Your task to perform on an android device: toggle data saver in the chrome app Image 0: 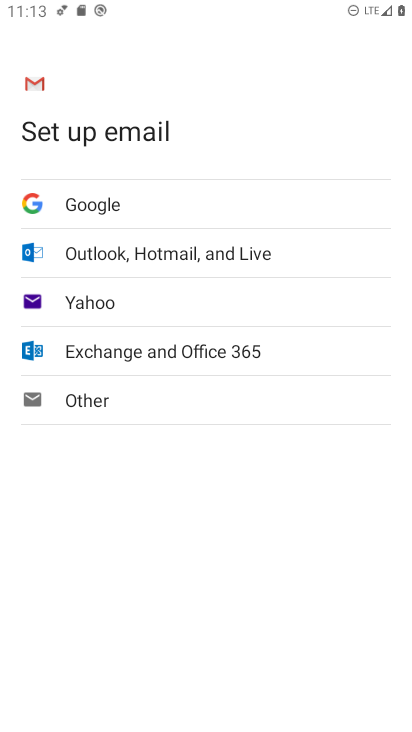
Step 0: press home button
Your task to perform on an android device: toggle data saver in the chrome app Image 1: 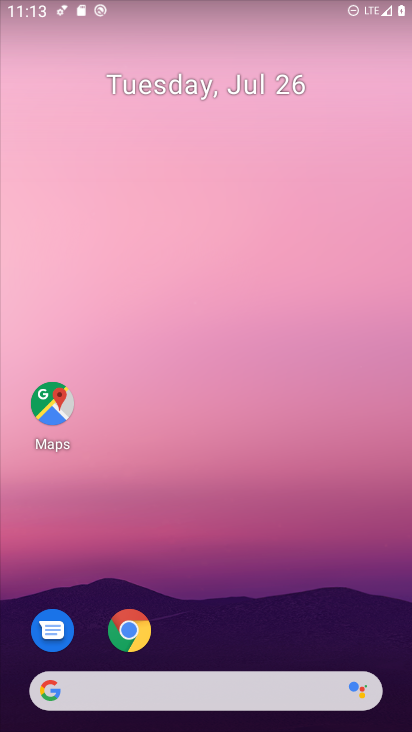
Step 1: click (133, 634)
Your task to perform on an android device: toggle data saver in the chrome app Image 2: 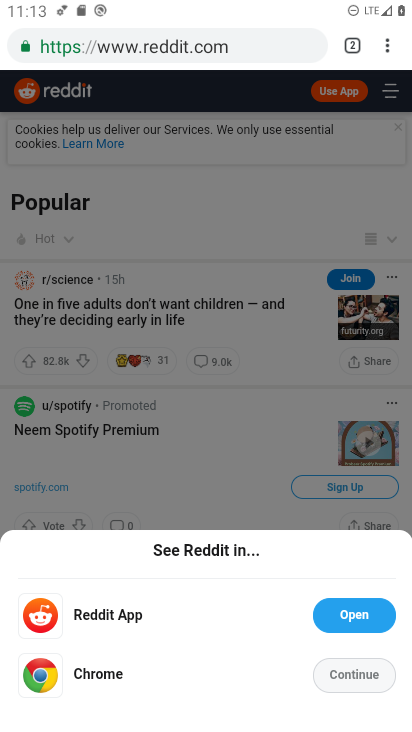
Step 2: click (384, 53)
Your task to perform on an android device: toggle data saver in the chrome app Image 3: 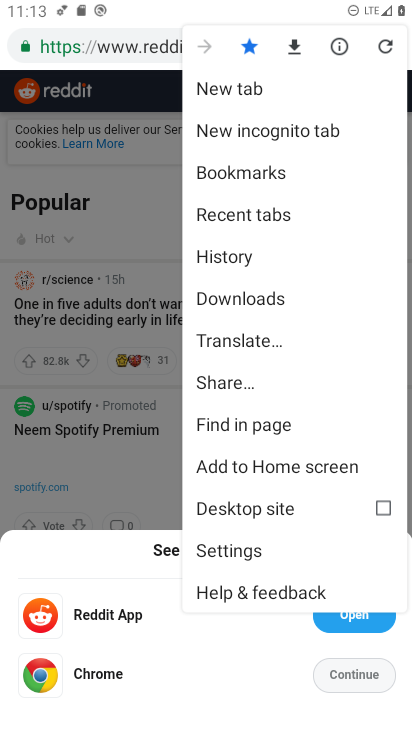
Step 3: click (236, 555)
Your task to perform on an android device: toggle data saver in the chrome app Image 4: 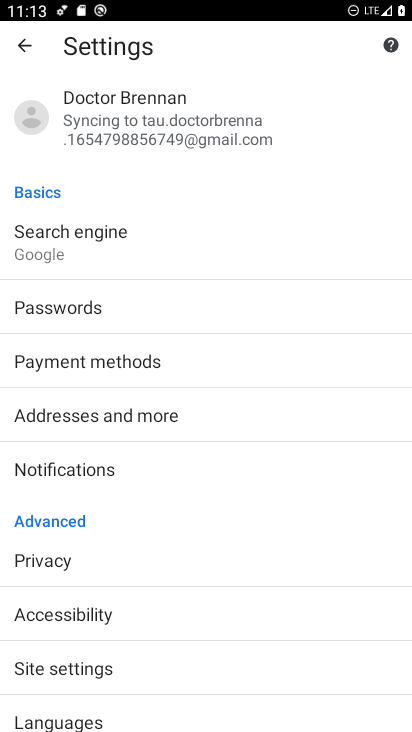
Step 4: drag from (210, 648) to (191, 282)
Your task to perform on an android device: toggle data saver in the chrome app Image 5: 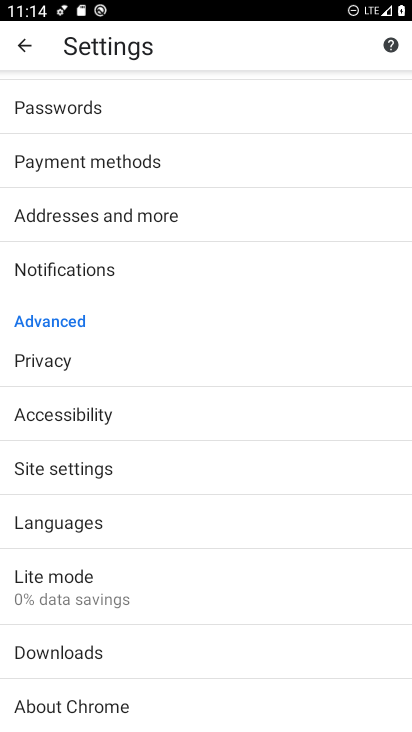
Step 5: click (53, 581)
Your task to perform on an android device: toggle data saver in the chrome app Image 6: 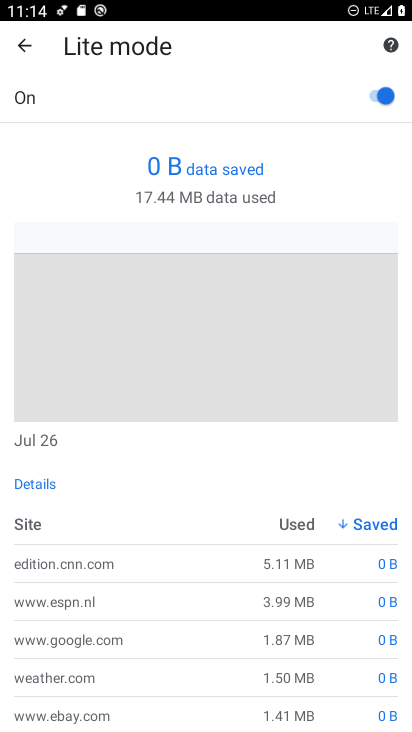
Step 6: click (369, 96)
Your task to perform on an android device: toggle data saver in the chrome app Image 7: 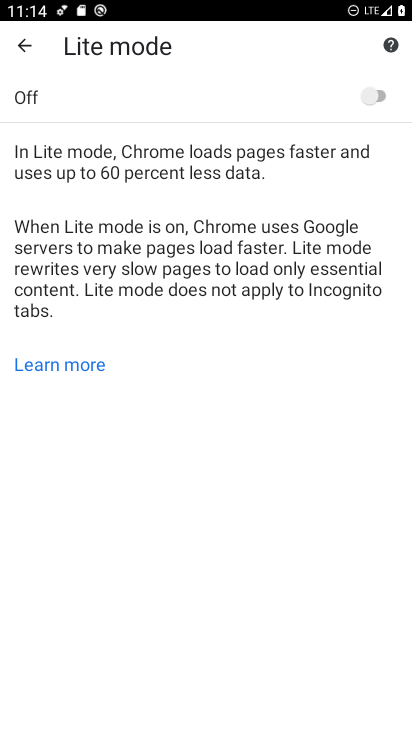
Step 7: task complete